Your task to perform on an android device: open app "LinkedIn" Image 0: 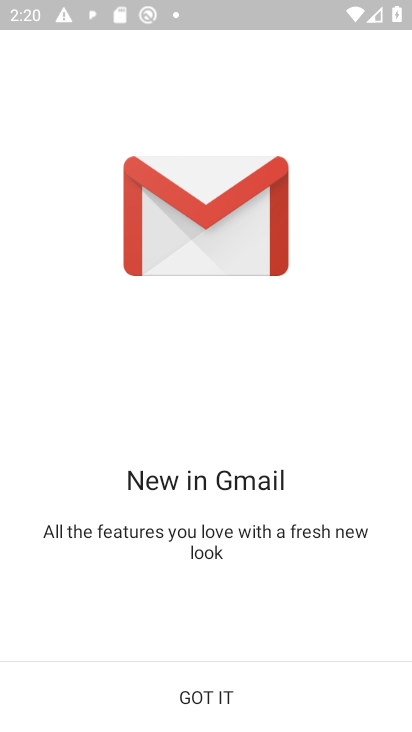
Step 0: press home button
Your task to perform on an android device: open app "LinkedIn" Image 1: 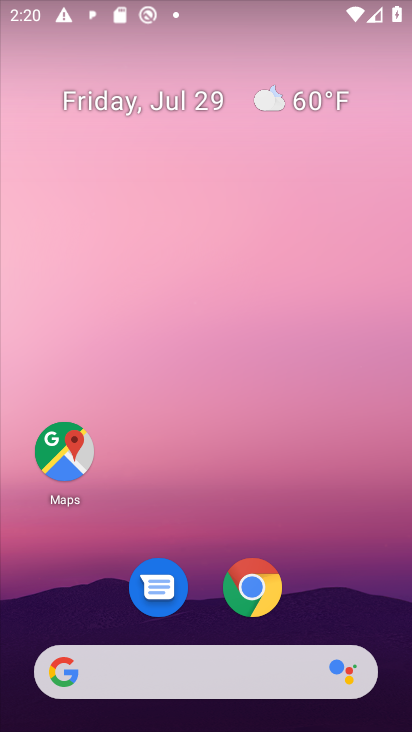
Step 1: drag from (261, 706) to (272, 56)
Your task to perform on an android device: open app "LinkedIn" Image 2: 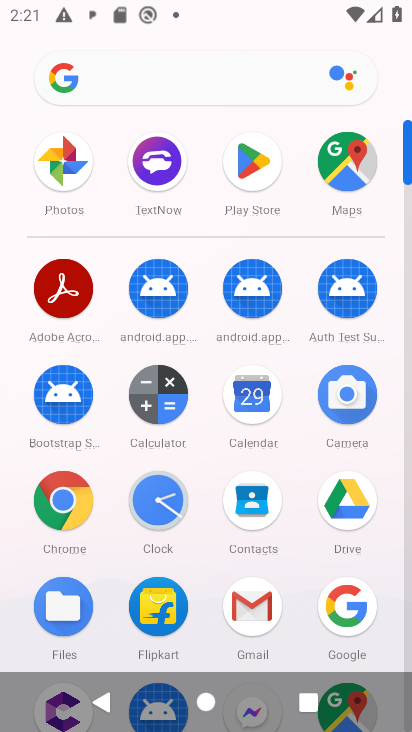
Step 2: click (255, 173)
Your task to perform on an android device: open app "LinkedIn" Image 3: 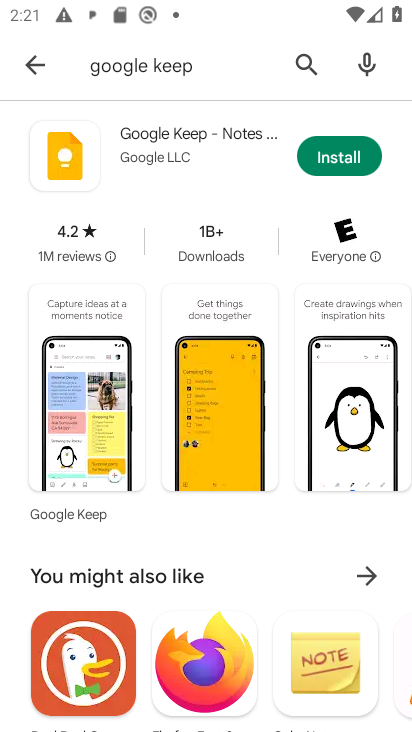
Step 3: click (314, 59)
Your task to perform on an android device: open app "LinkedIn" Image 4: 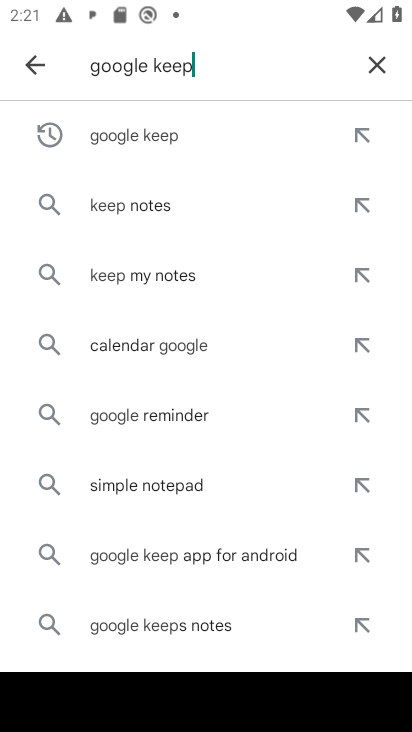
Step 4: click (383, 60)
Your task to perform on an android device: open app "LinkedIn" Image 5: 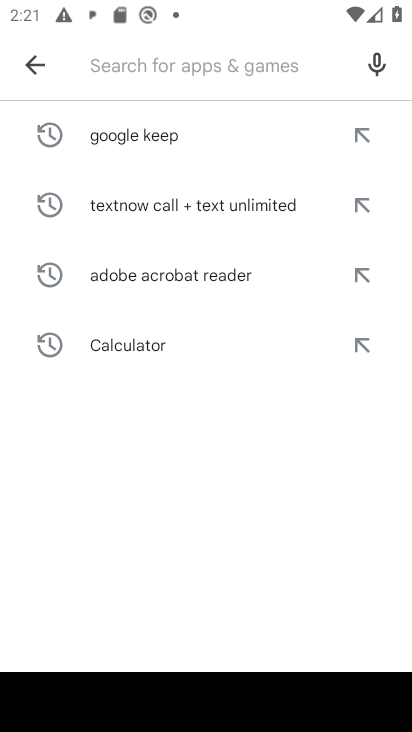
Step 5: type "LinkedIn"
Your task to perform on an android device: open app "LinkedIn" Image 6: 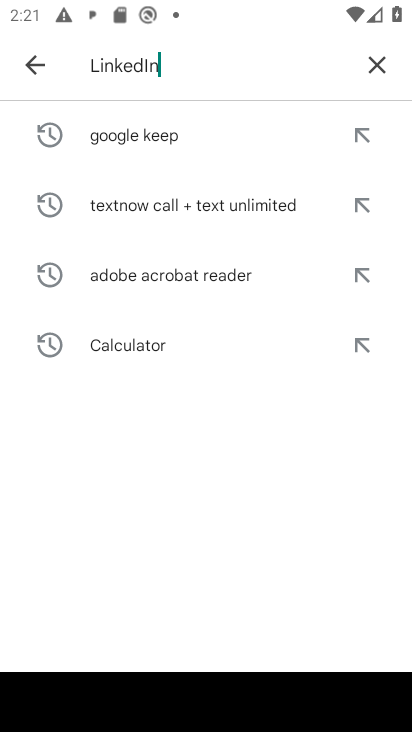
Step 6: type ""
Your task to perform on an android device: open app "LinkedIn" Image 7: 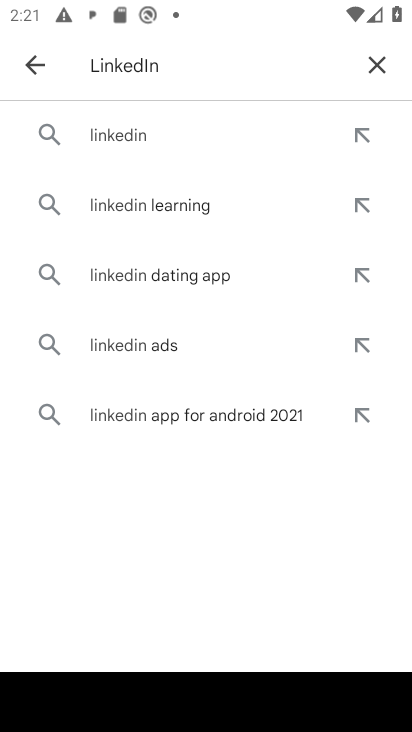
Step 7: click (220, 143)
Your task to perform on an android device: open app "LinkedIn" Image 8: 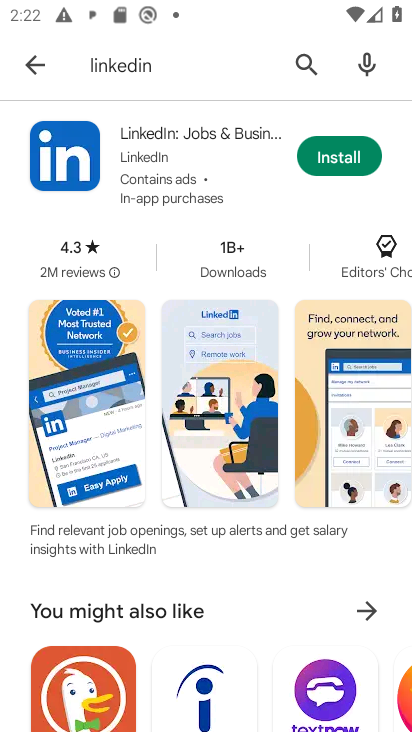
Step 8: task complete